Your task to perform on an android device: Open Wikipedia Image 0: 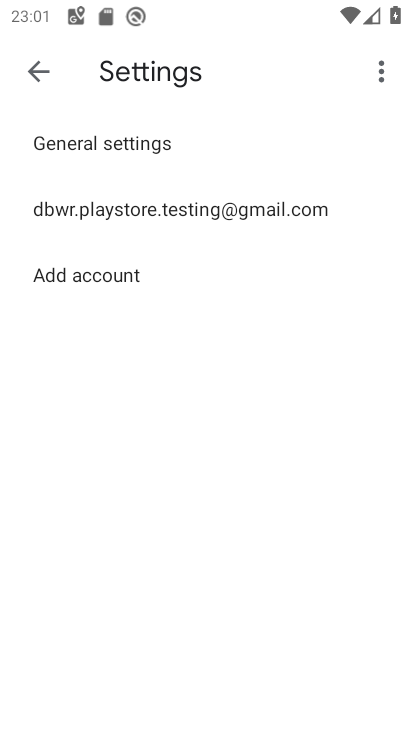
Step 0: press home button
Your task to perform on an android device: Open Wikipedia Image 1: 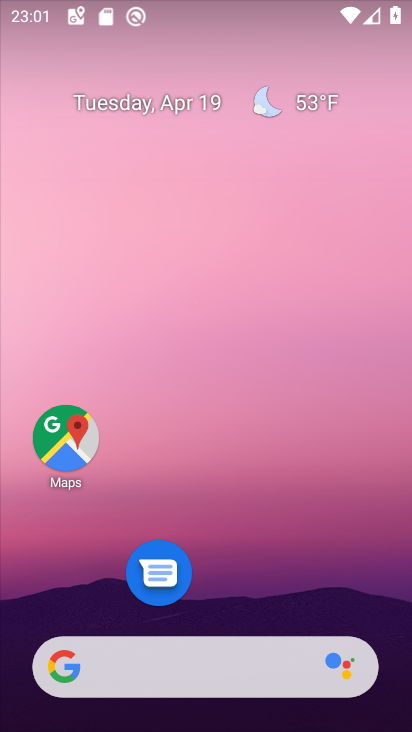
Step 1: drag from (217, 615) to (248, 87)
Your task to perform on an android device: Open Wikipedia Image 2: 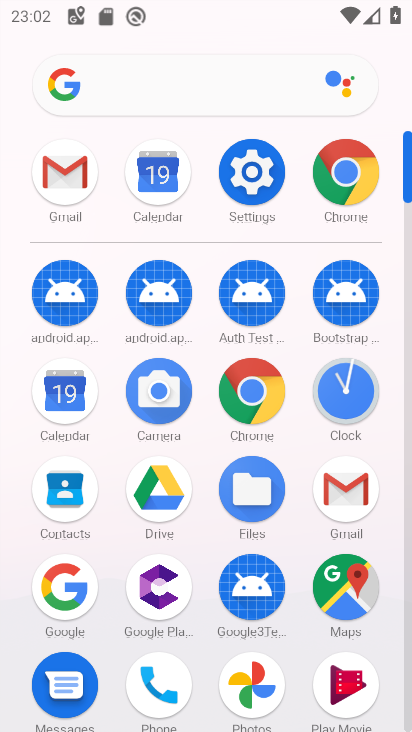
Step 2: click (345, 174)
Your task to perform on an android device: Open Wikipedia Image 3: 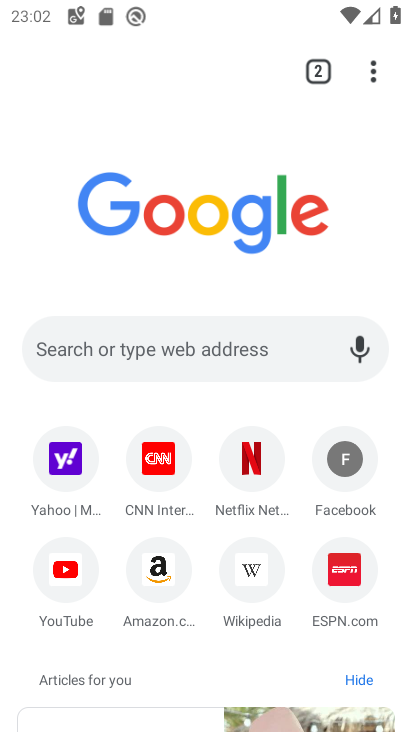
Step 3: click (244, 566)
Your task to perform on an android device: Open Wikipedia Image 4: 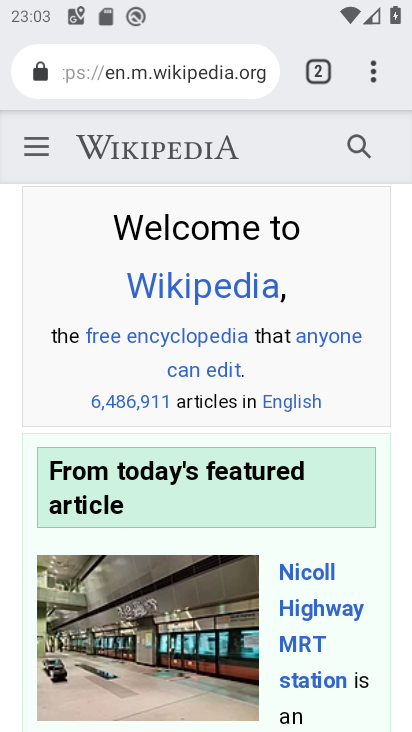
Step 4: task complete